Your task to perform on an android device: Go to Yahoo.com Image 0: 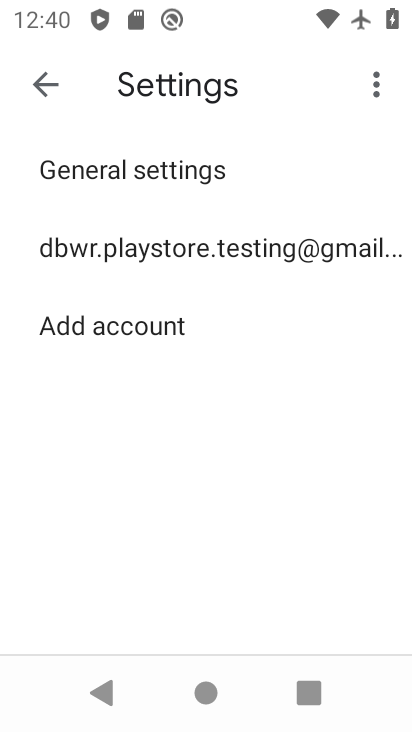
Step 0: press home button
Your task to perform on an android device: Go to Yahoo.com Image 1: 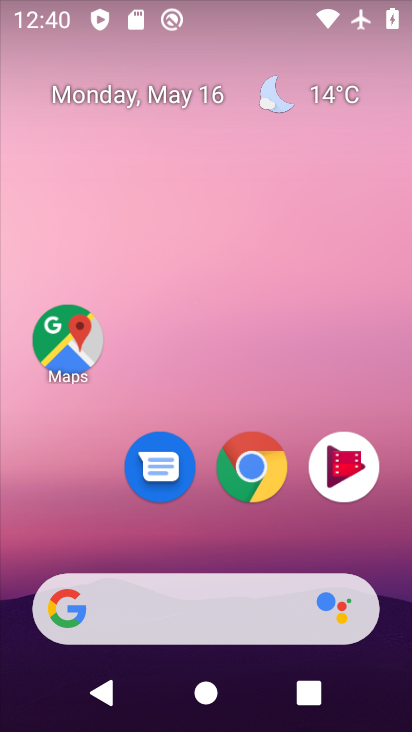
Step 1: drag from (189, 559) to (279, 139)
Your task to perform on an android device: Go to Yahoo.com Image 2: 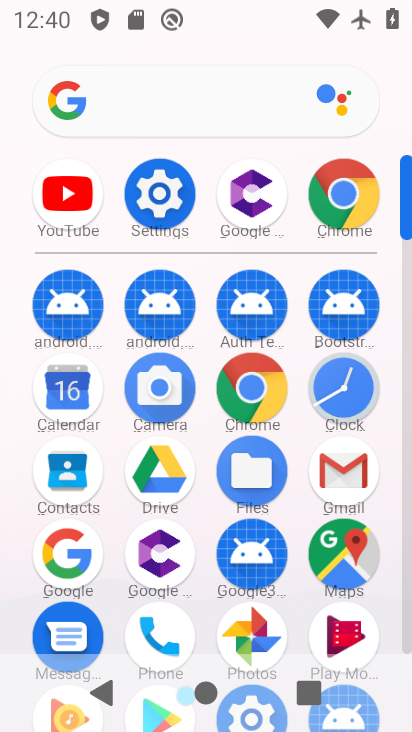
Step 2: drag from (236, 570) to (319, 278)
Your task to perform on an android device: Go to Yahoo.com Image 3: 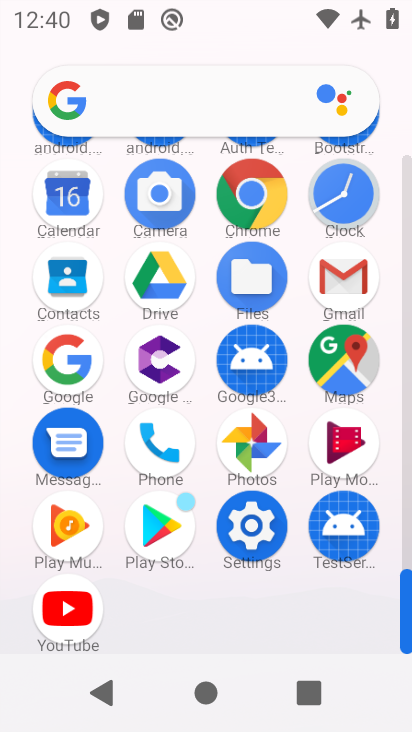
Step 3: click (246, 197)
Your task to perform on an android device: Go to Yahoo.com Image 4: 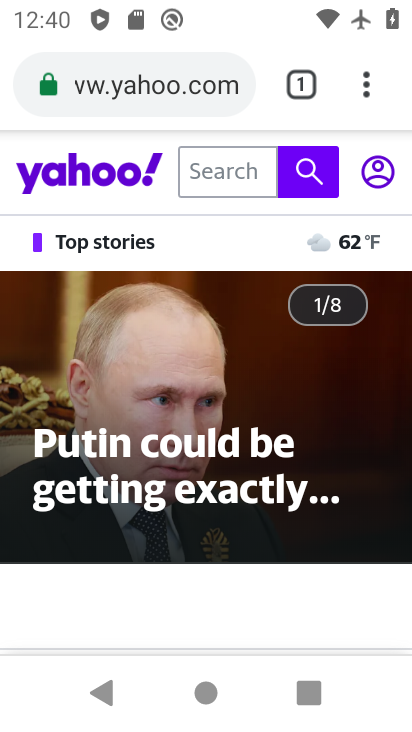
Step 4: task complete